Your task to perform on an android device: turn notification dots on Image 0: 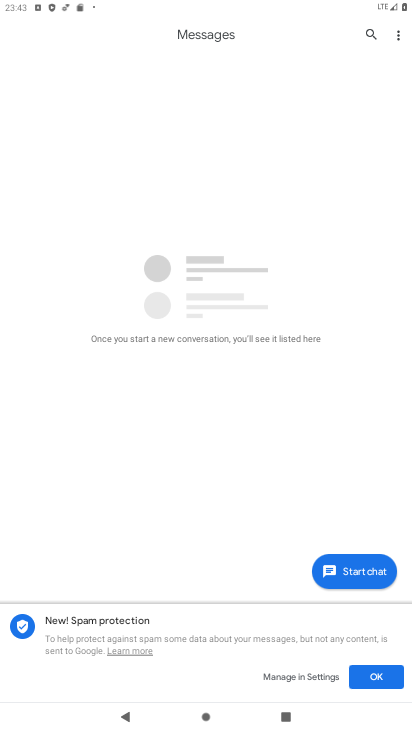
Step 0: press home button
Your task to perform on an android device: turn notification dots on Image 1: 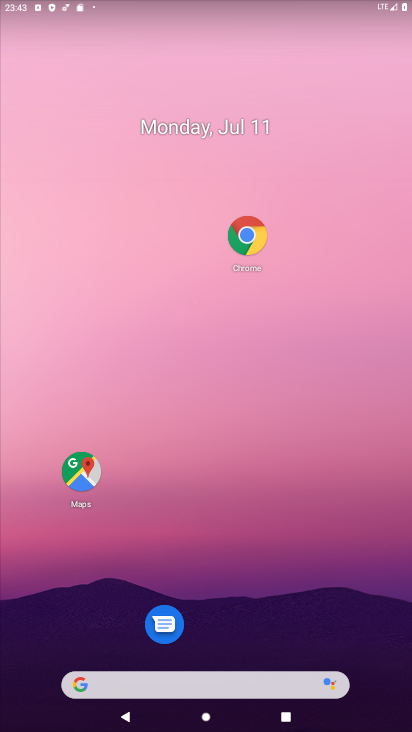
Step 1: drag from (201, 623) to (238, 127)
Your task to perform on an android device: turn notification dots on Image 2: 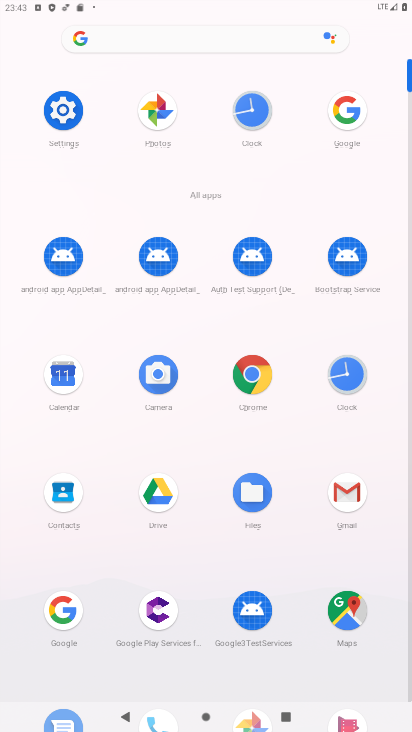
Step 2: click (58, 109)
Your task to perform on an android device: turn notification dots on Image 3: 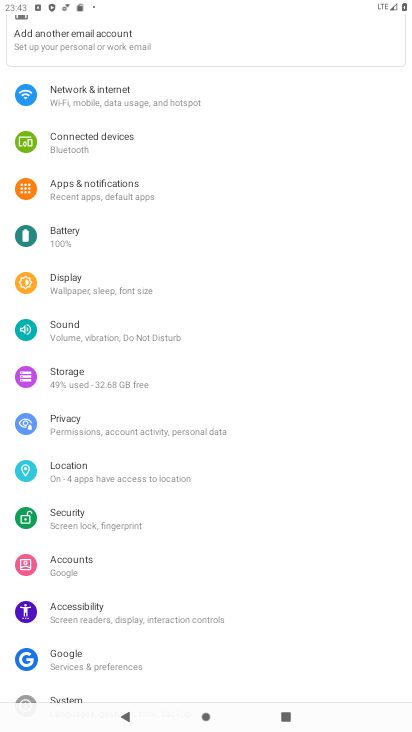
Step 3: click (151, 195)
Your task to perform on an android device: turn notification dots on Image 4: 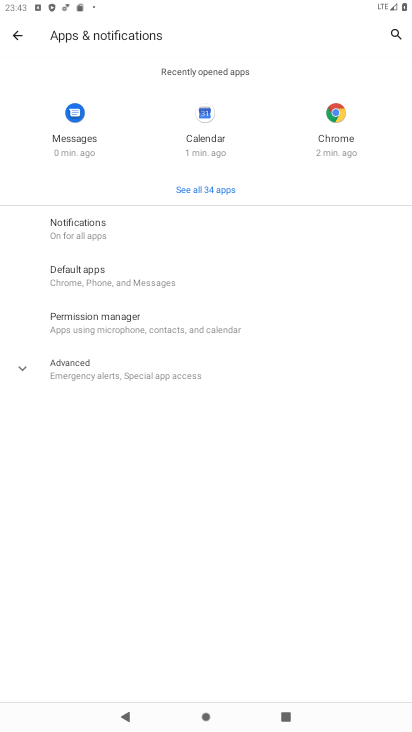
Step 4: click (112, 210)
Your task to perform on an android device: turn notification dots on Image 5: 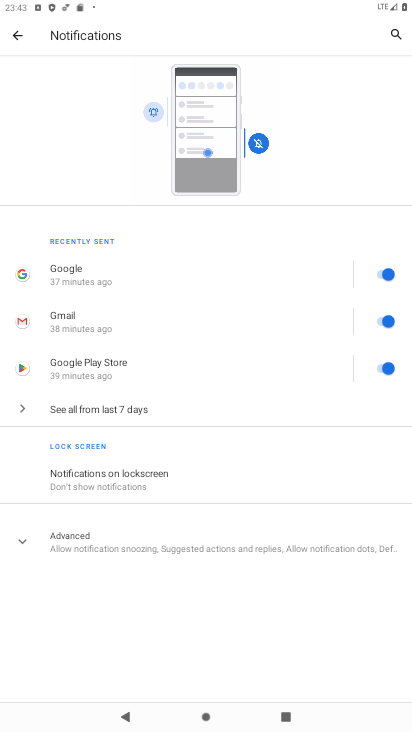
Step 5: click (140, 528)
Your task to perform on an android device: turn notification dots on Image 6: 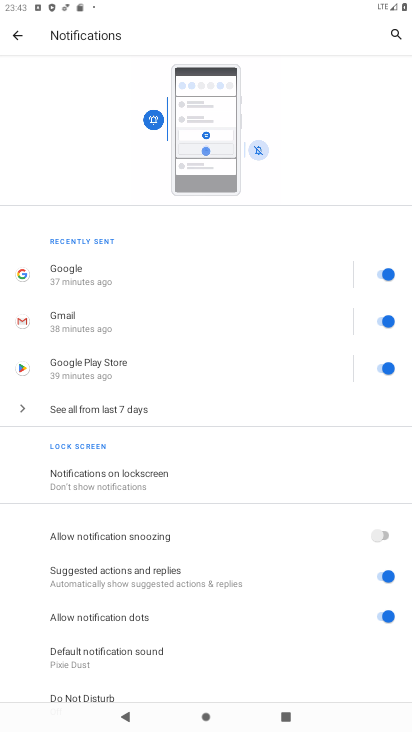
Step 6: task complete